Your task to perform on an android device: add a label to a message in the gmail app Image 0: 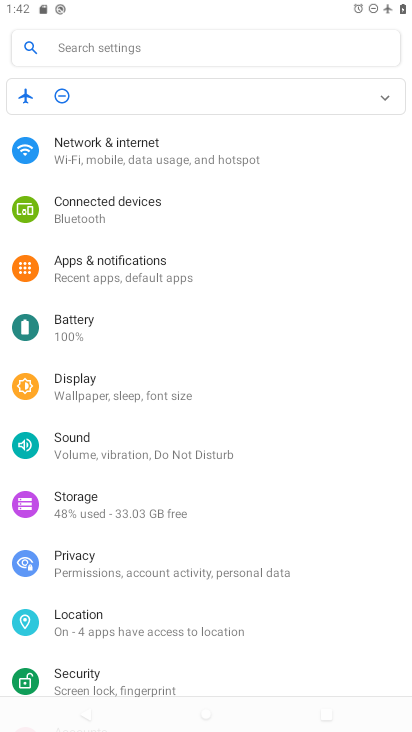
Step 0: press home button
Your task to perform on an android device: add a label to a message in the gmail app Image 1: 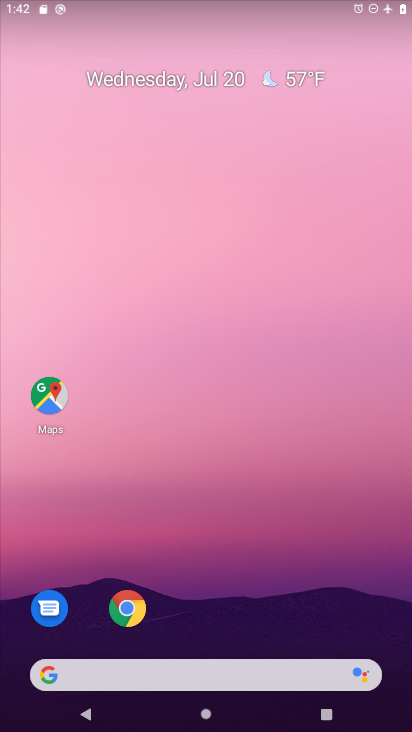
Step 1: drag from (273, 720) to (132, 219)
Your task to perform on an android device: add a label to a message in the gmail app Image 2: 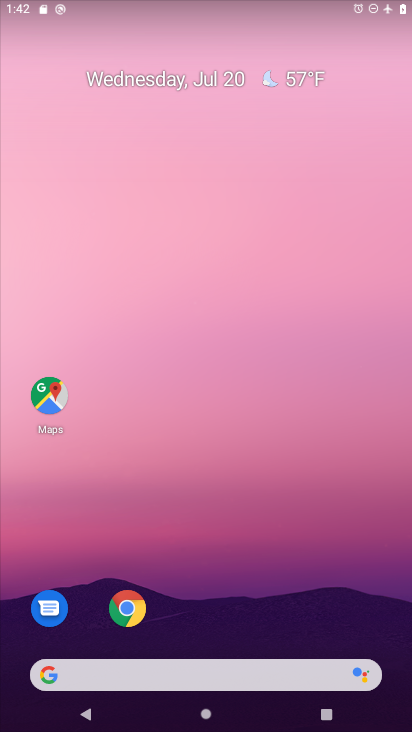
Step 2: drag from (246, 670) to (196, 249)
Your task to perform on an android device: add a label to a message in the gmail app Image 3: 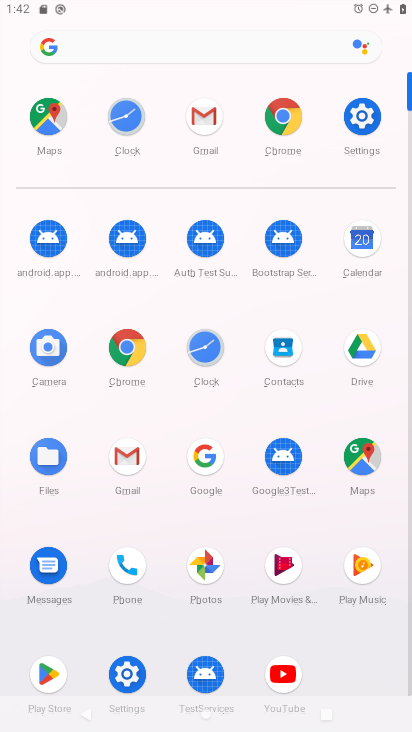
Step 3: click (114, 468)
Your task to perform on an android device: add a label to a message in the gmail app Image 4: 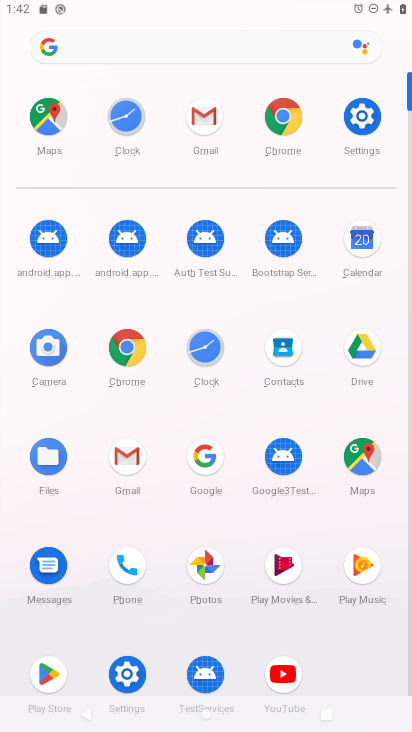
Step 4: click (114, 468)
Your task to perform on an android device: add a label to a message in the gmail app Image 5: 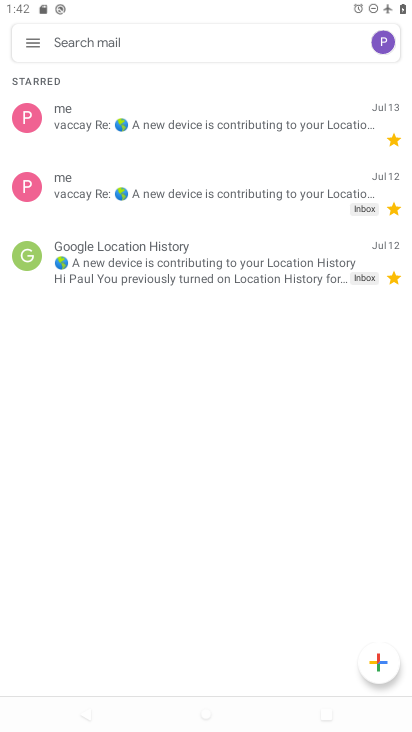
Step 5: click (295, 122)
Your task to perform on an android device: add a label to a message in the gmail app Image 6: 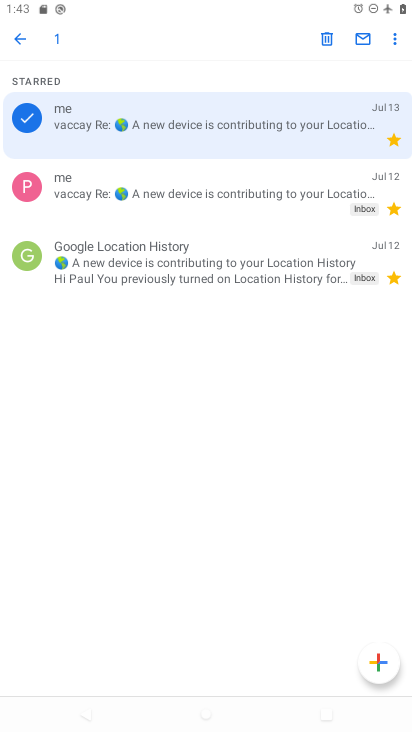
Step 6: click (397, 34)
Your task to perform on an android device: add a label to a message in the gmail app Image 7: 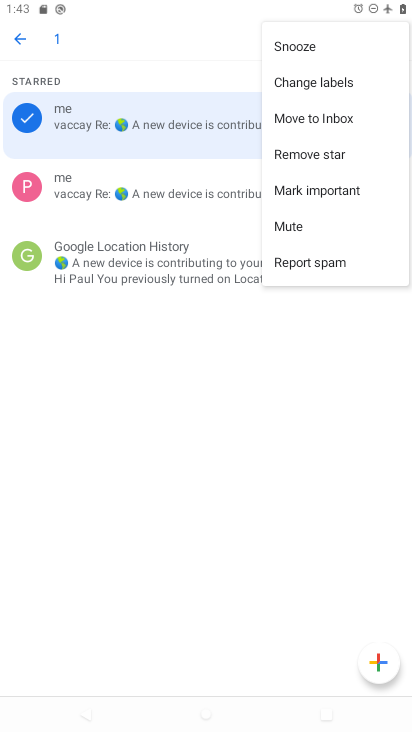
Step 7: click (335, 86)
Your task to perform on an android device: add a label to a message in the gmail app Image 8: 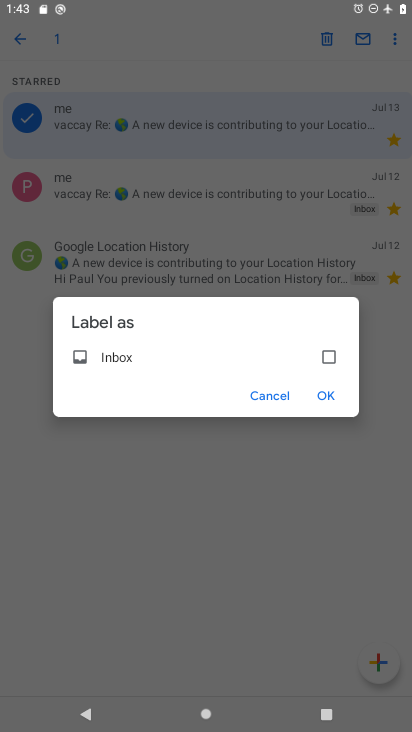
Step 8: click (168, 346)
Your task to perform on an android device: add a label to a message in the gmail app Image 9: 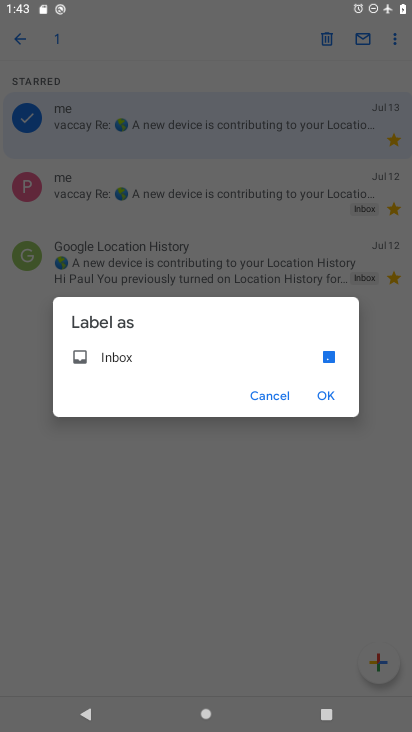
Step 9: click (335, 349)
Your task to perform on an android device: add a label to a message in the gmail app Image 10: 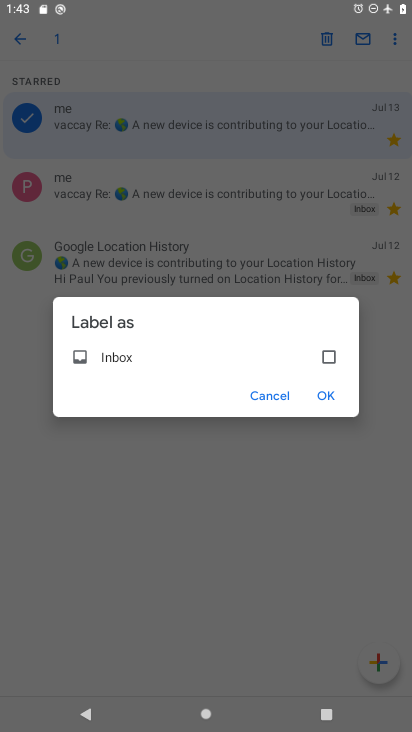
Step 10: click (321, 393)
Your task to perform on an android device: add a label to a message in the gmail app Image 11: 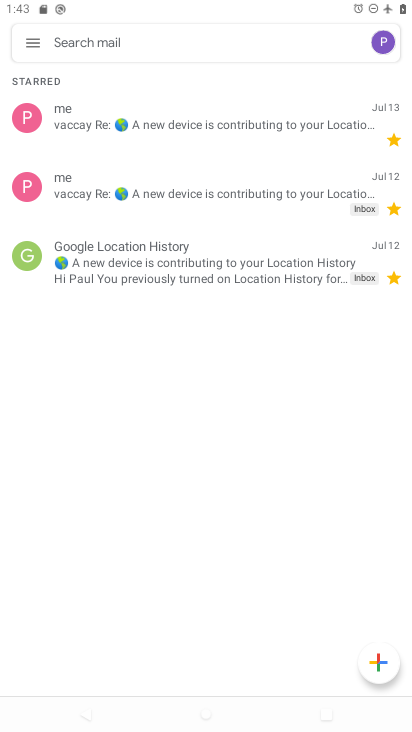
Step 11: task complete